Your task to perform on an android device: Open accessibility settings Image 0: 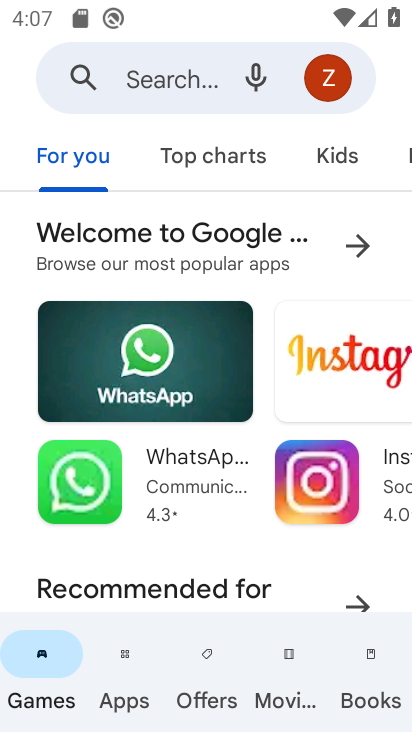
Step 0: press home button
Your task to perform on an android device: Open accessibility settings Image 1: 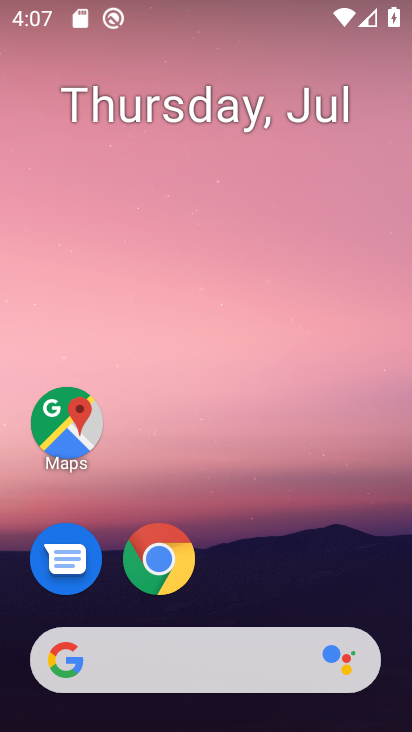
Step 1: drag from (199, 615) to (332, 101)
Your task to perform on an android device: Open accessibility settings Image 2: 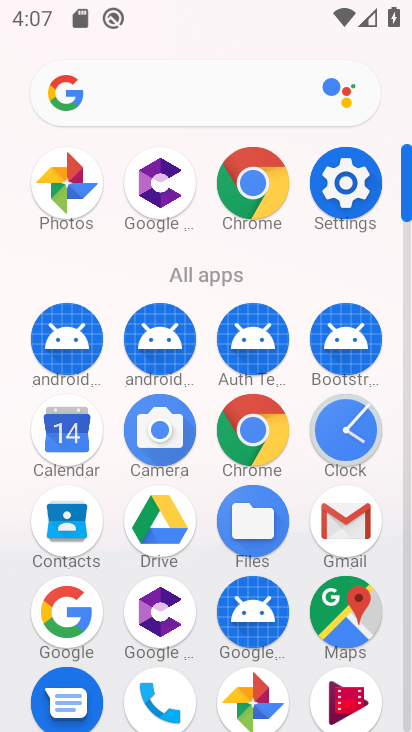
Step 2: click (353, 199)
Your task to perform on an android device: Open accessibility settings Image 3: 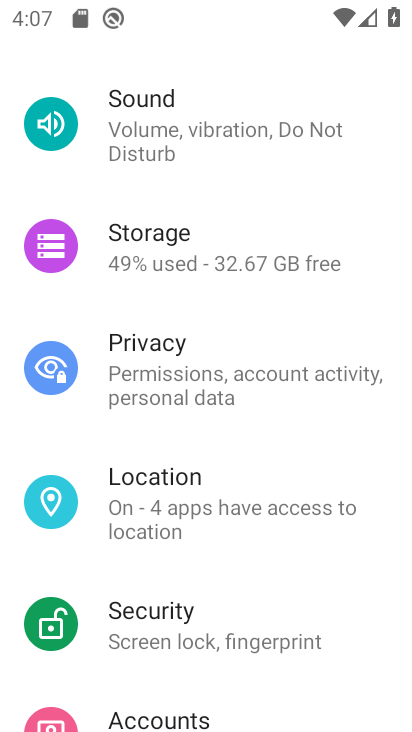
Step 3: drag from (275, 584) to (297, 378)
Your task to perform on an android device: Open accessibility settings Image 4: 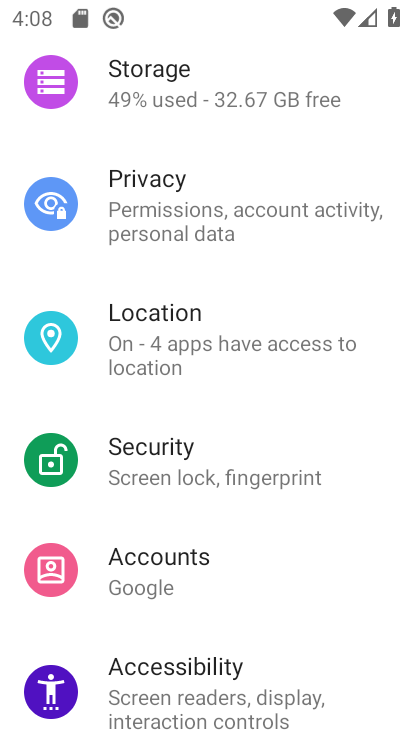
Step 4: drag from (207, 548) to (217, 372)
Your task to perform on an android device: Open accessibility settings Image 5: 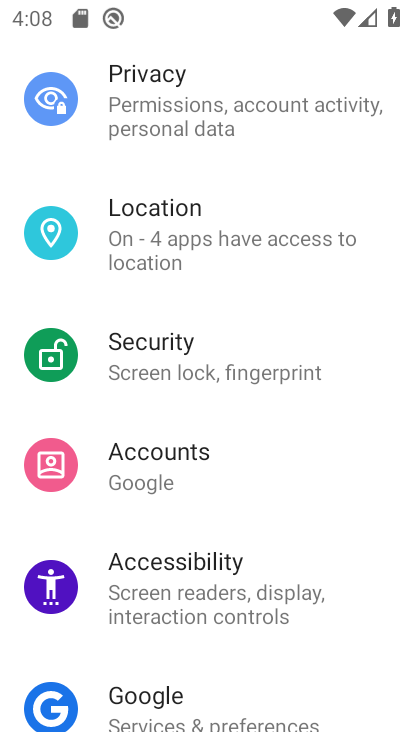
Step 5: click (198, 589)
Your task to perform on an android device: Open accessibility settings Image 6: 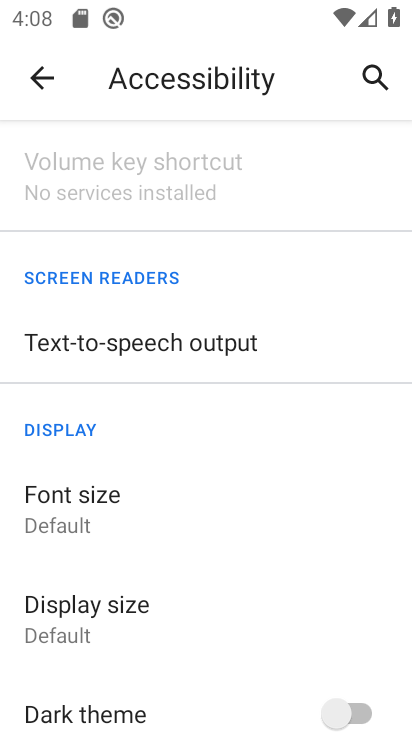
Step 6: task complete